Your task to perform on an android device: turn on priority inbox in the gmail app Image 0: 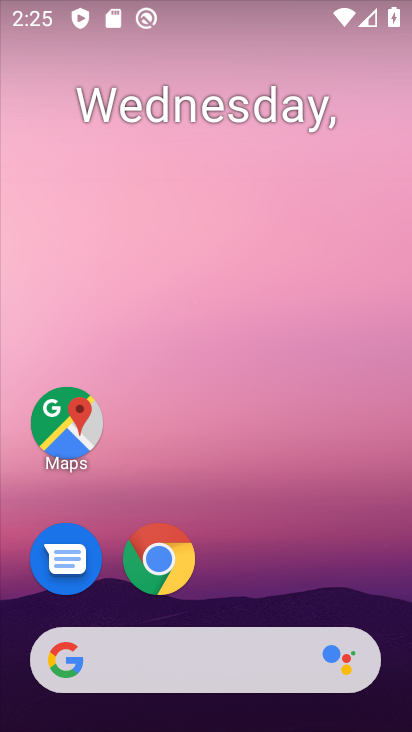
Step 0: drag from (200, 572) to (314, 36)
Your task to perform on an android device: turn on priority inbox in the gmail app Image 1: 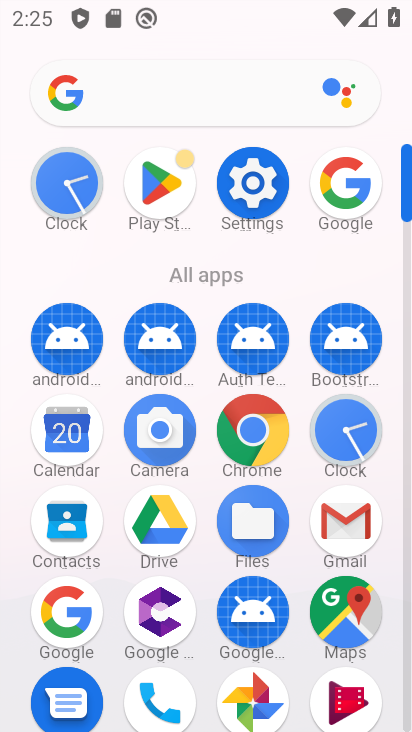
Step 1: click (344, 533)
Your task to perform on an android device: turn on priority inbox in the gmail app Image 2: 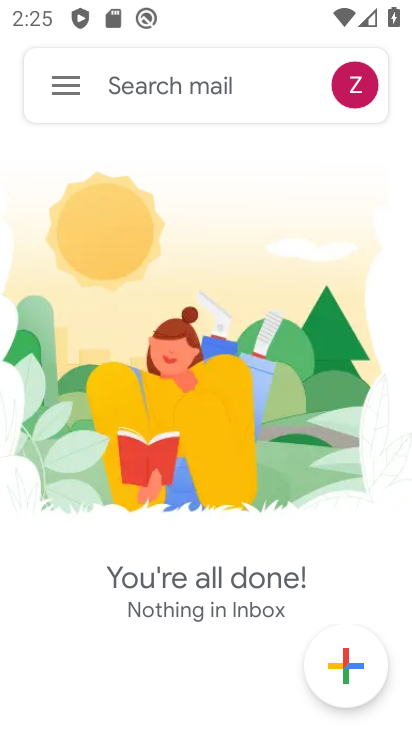
Step 2: click (59, 97)
Your task to perform on an android device: turn on priority inbox in the gmail app Image 3: 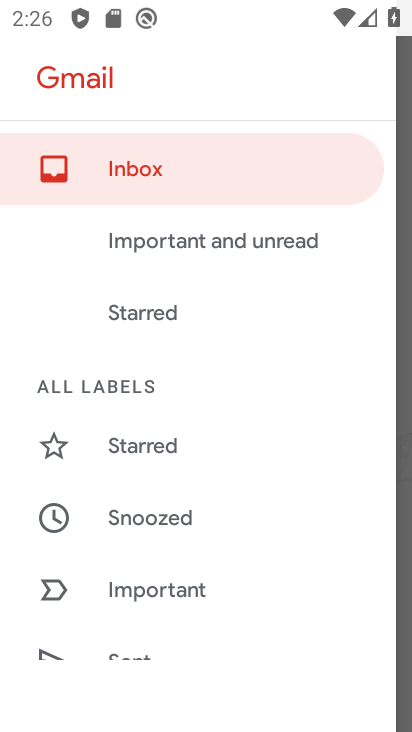
Step 3: drag from (135, 599) to (264, 111)
Your task to perform on an android device: turn on priority inbox in the gmail app Image 4: 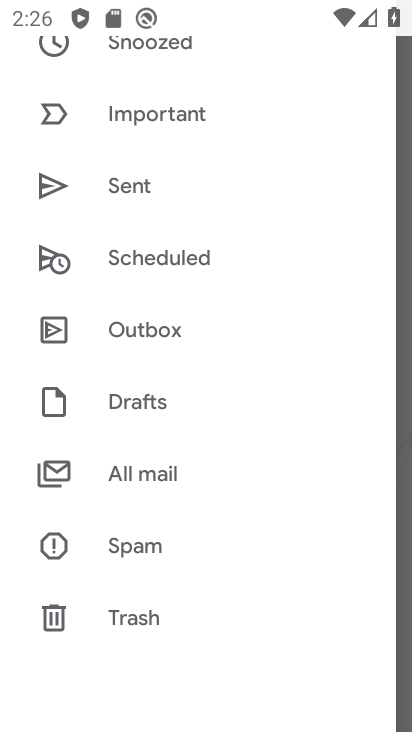
Step 4: drag from (167, 628) to (310, 43)
Your task to perform on an android device: turn on priority inbox in the gmail app Image 5: 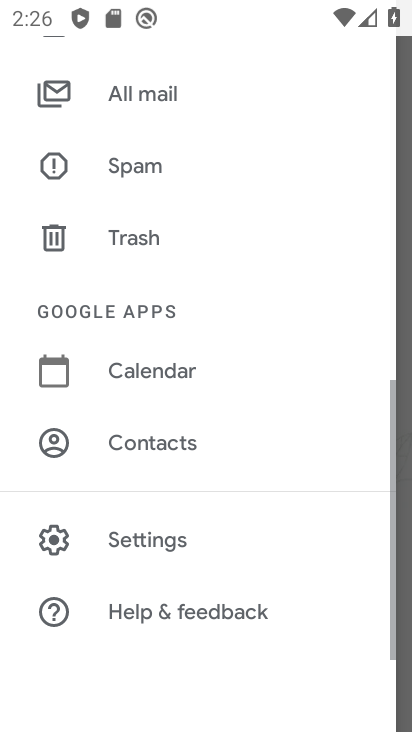
Step 5: click (150, 520)
Your task to perform on an android device: turn on priority inbox in the gmail app Image 6: 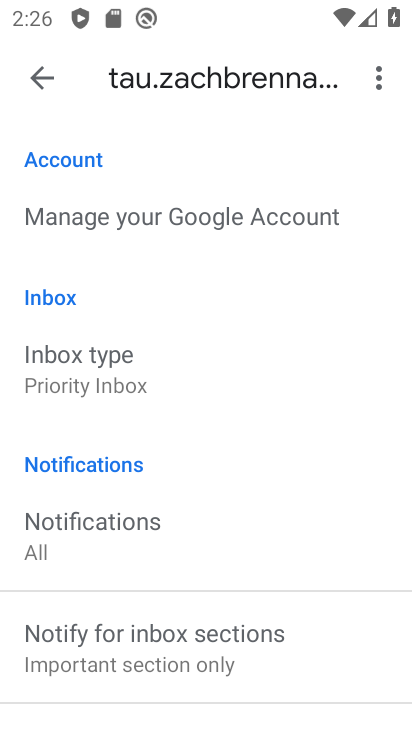
Step 6: click (105, 362)
Your task to perform on an android device: turn on priority inbox in the gmail app Image 7: 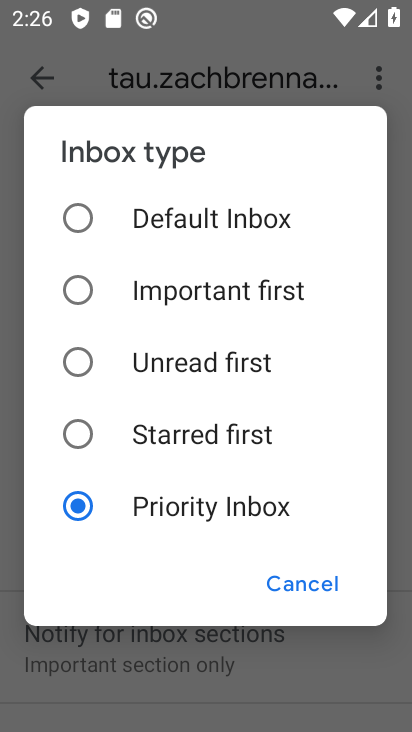
Step 7: click (70, 519)
Your task to perform on an android device: turn on priority inbox in the gmail app Image 8: 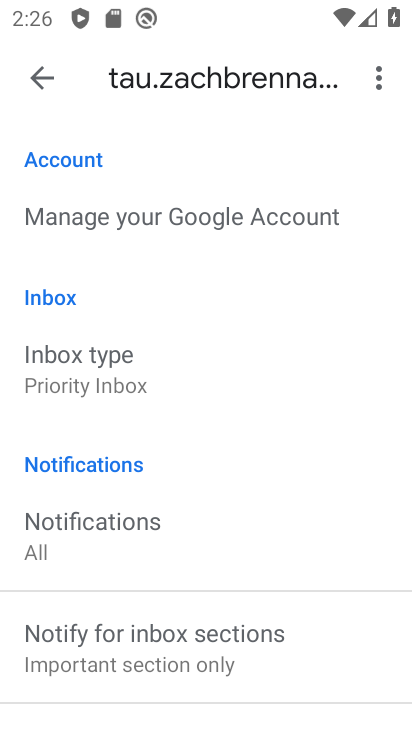
Step 8: task complete